Your task to perform on an android device: Open settings Image 0: 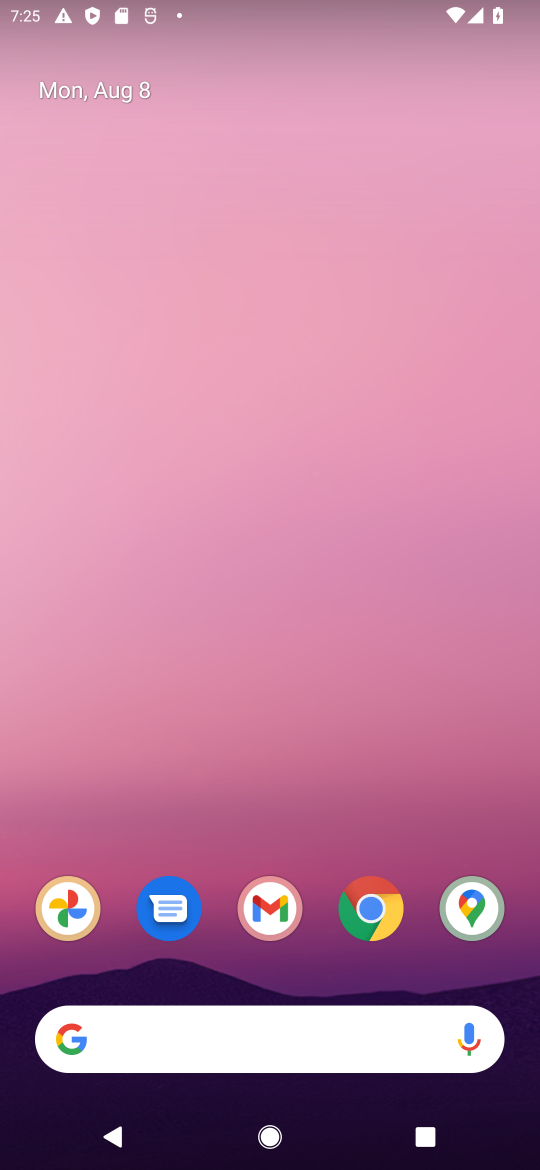
Step 0: drag from (313, 786) to (236, 28)
Your task to perform on an android device: Open settings Image 1: 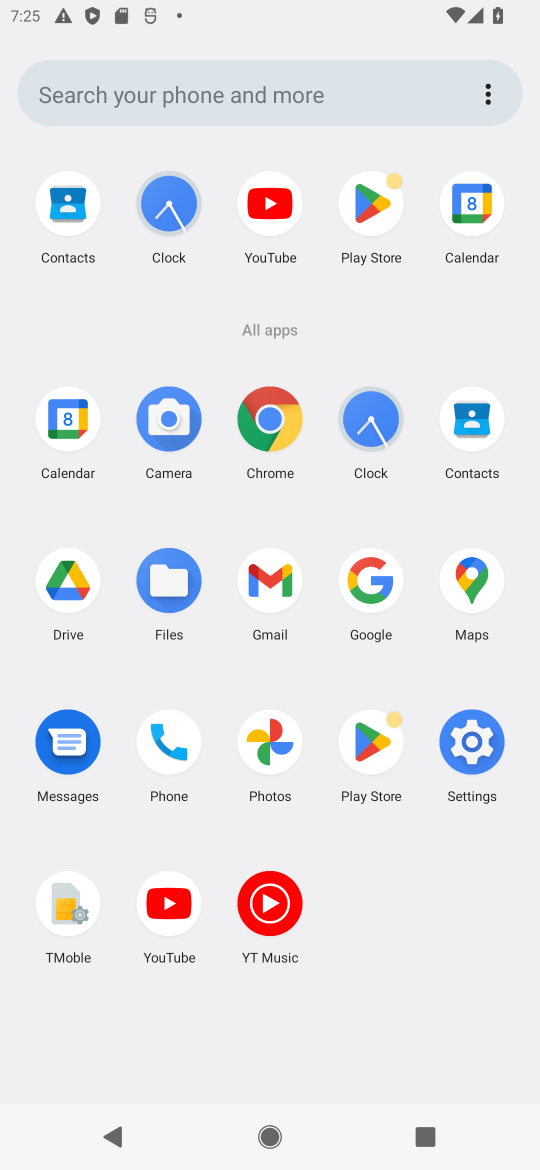
Step 1: click (473, 743)
Your task to perform on an android device: Open settings Image 2: 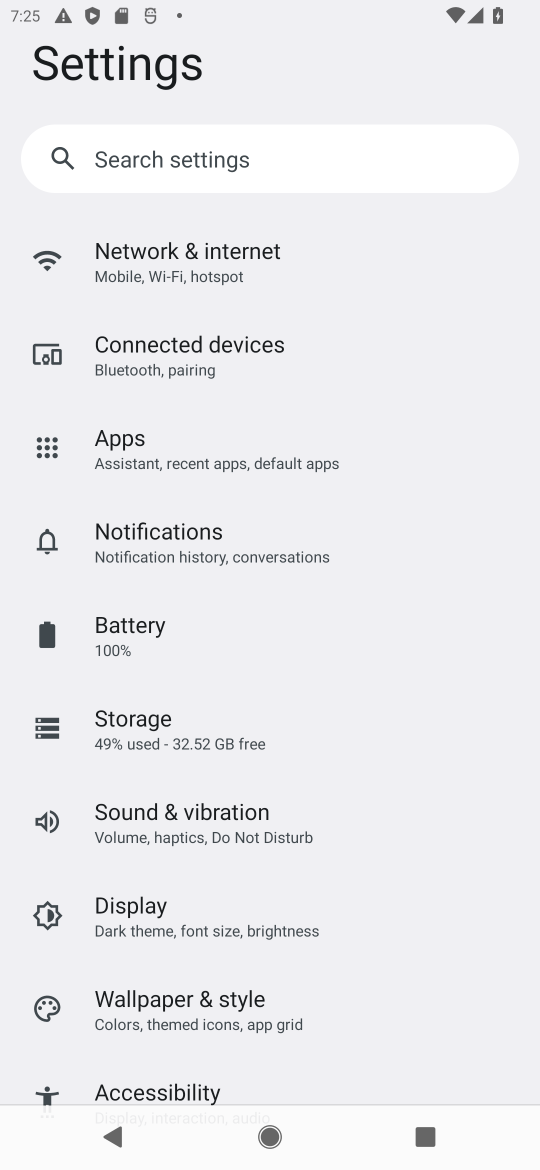
Step 2: task complete